Your task to perform on an android device: turn off notifications in google photos Image 0: 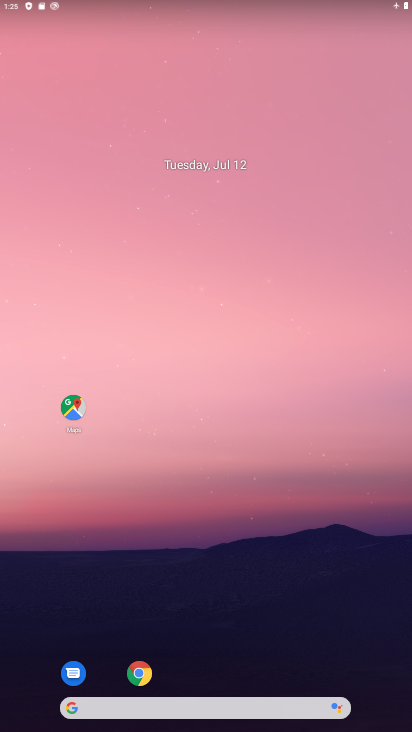
Step 0: drag from (187, 646) to (185, 276)
Your task to perform on an android device: turn off notifications in google photos Image 1: 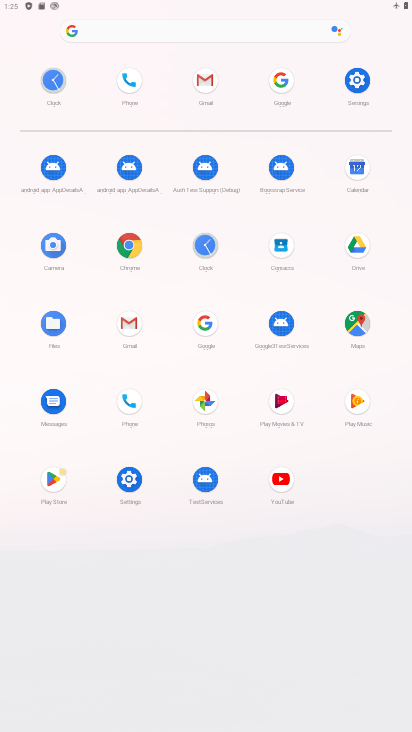
Step 1: click (196, 386)
Your task to perform on an android device: turn off notifications in google photos Image 2: 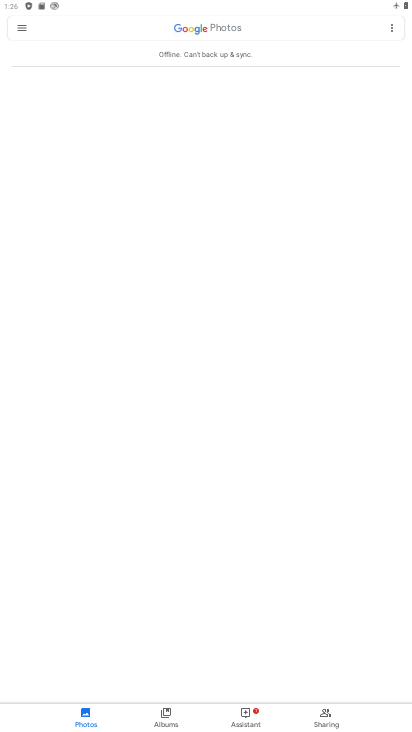
Step 2: click (17, 20)
Your task to perform on an android device: turn off notifications in google photos Image 3: 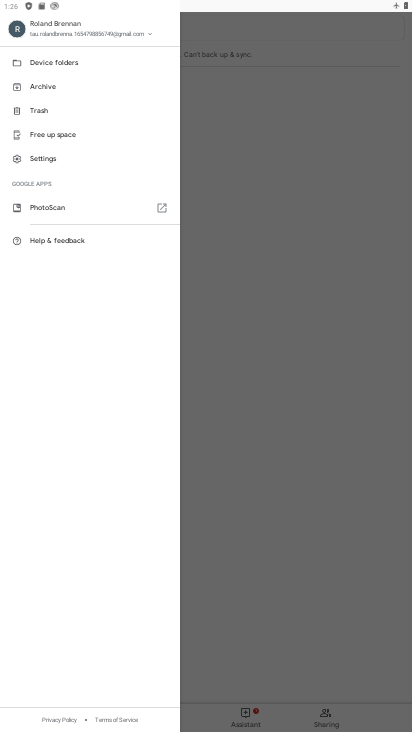
Step 3: drag from (62, 202) to (102, 135)
Your task to perform on an android device: turn off notifications in google photos Image 4: 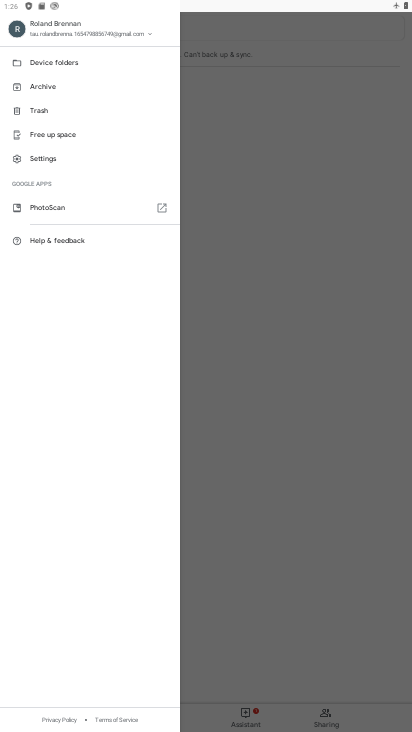
Step 4: click (53, 157)
Your task to perform on an android device: turn off notifications in google photos Image 5: 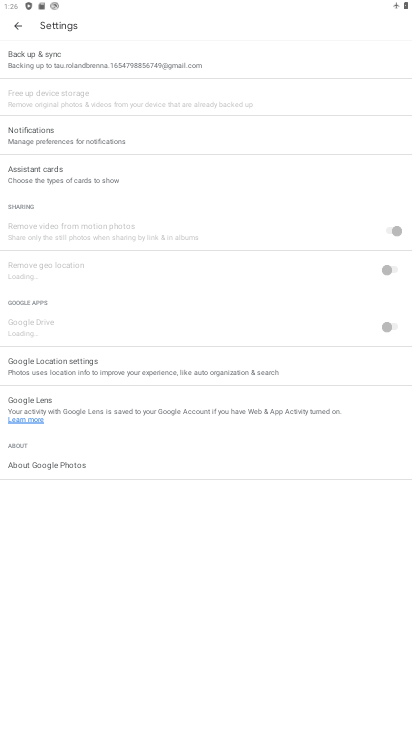
Step 5: click (70, 148)
Your task to perform on an android device: turn off notifications in google photos Image 6: 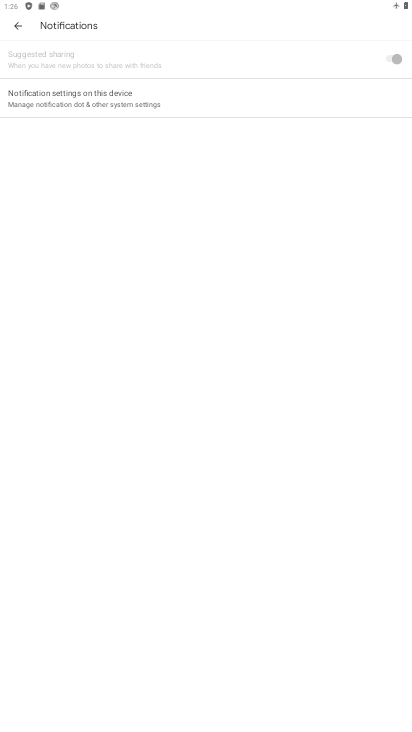
Step 6: click (89, 101)
Your task to perform on an android device: turn off notifications in google photos Image 7: 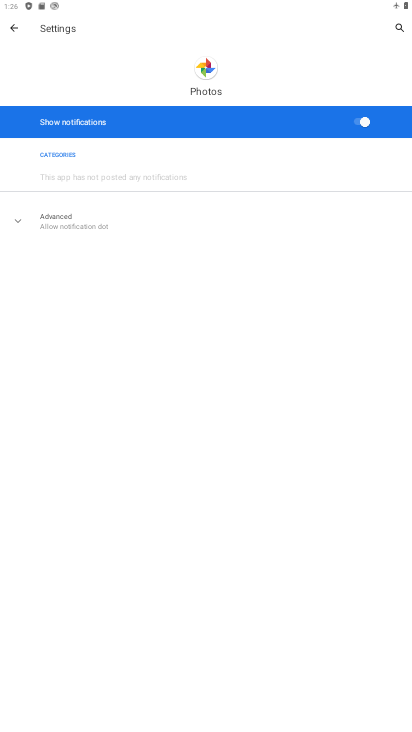
Step 7: click (359, 115)
Your task to perform on an android device: turn off notifications in google photos Image 8: 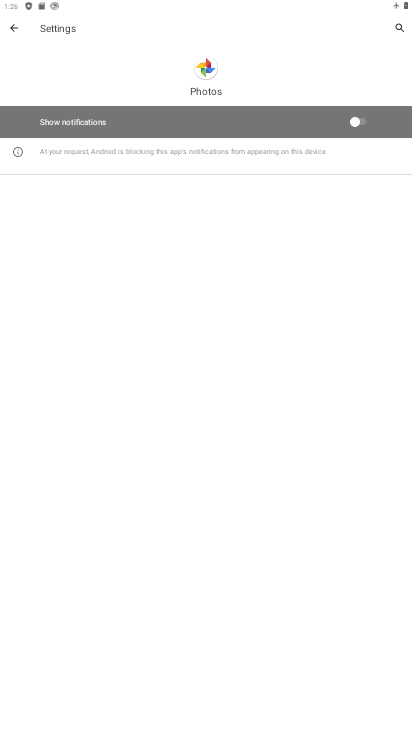
Step 8: task complete